Your task to perform on an android device: Go to network settings Image 0: 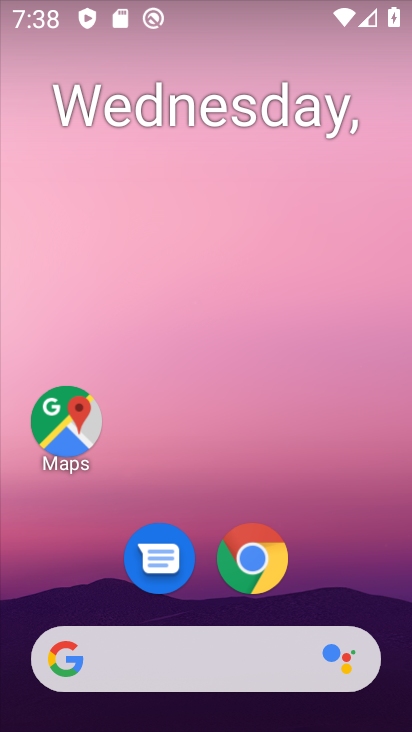
Step 0: press home button
Your task to perform on an android device: Go to network settings Image 1: 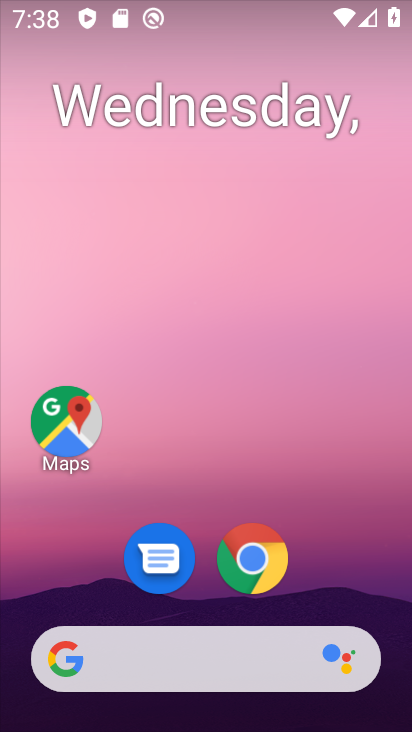
Step 1: drag from (208, 607) to (223, 43)
Your task to perform on an android device: Go to network settings Image 2: 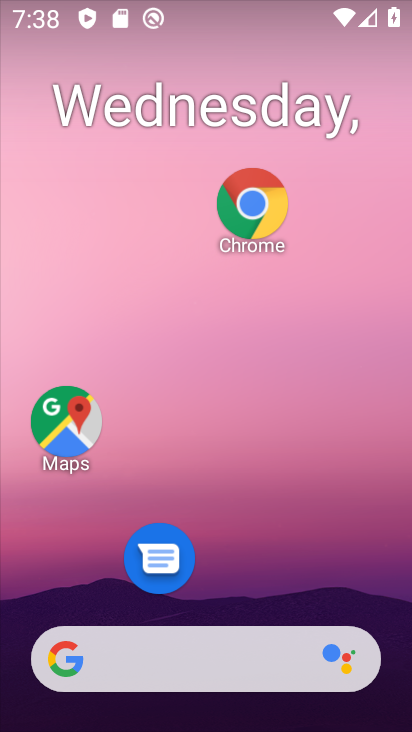
Step 2: drag from (296, 585) to (376, 86)
Your task to perform on an android device: Go to network settings Image 3: 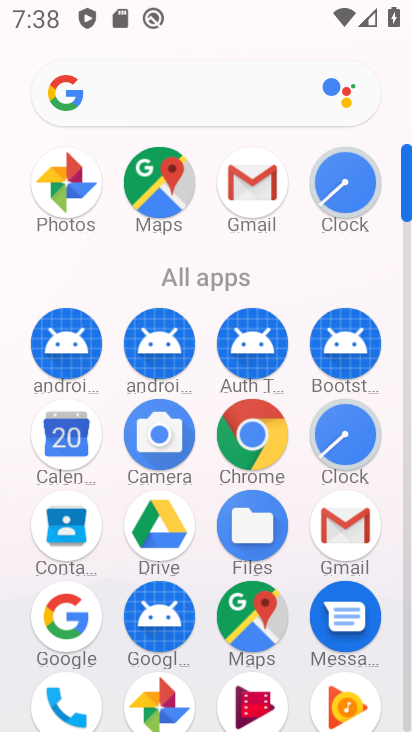
Step 3: drag from (203, 492) to (227, 34)
Your task to perform on an android device: Go to network settings Image 4: 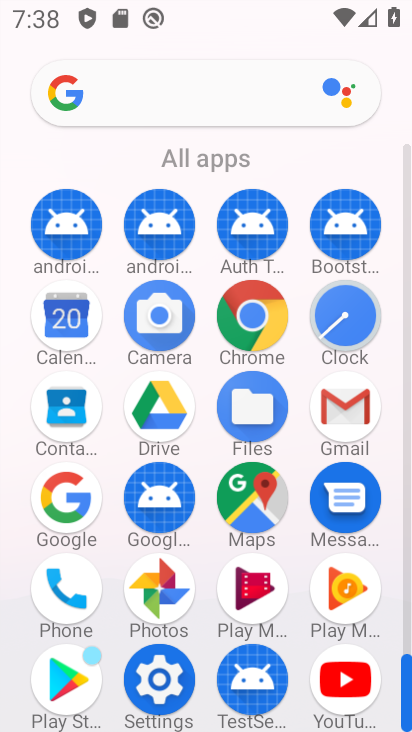
Step 4: click (152, 675)
Your task to perform on an android device: Go to network settings Image 5: 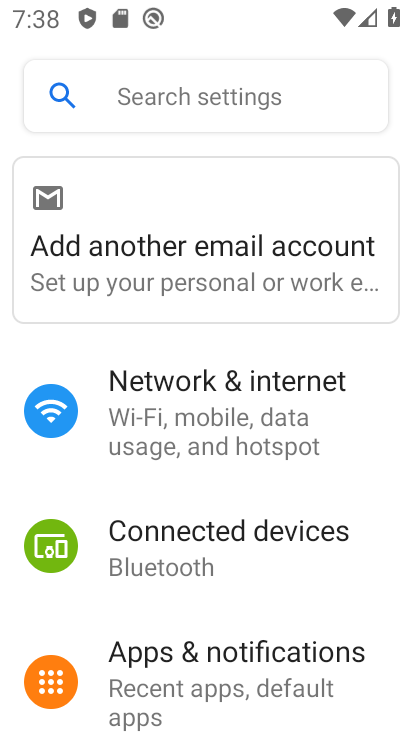
Step 5: click (176, 424)
Your task to perform on an android device: Go to network settings Image 6: 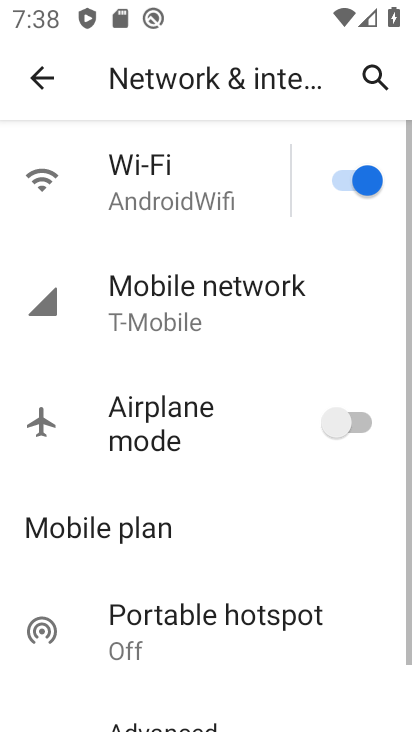
Step 6: drag from (215, 623) to (252, 164)
Your task to perform on an android device: Go to network settings Image 7: 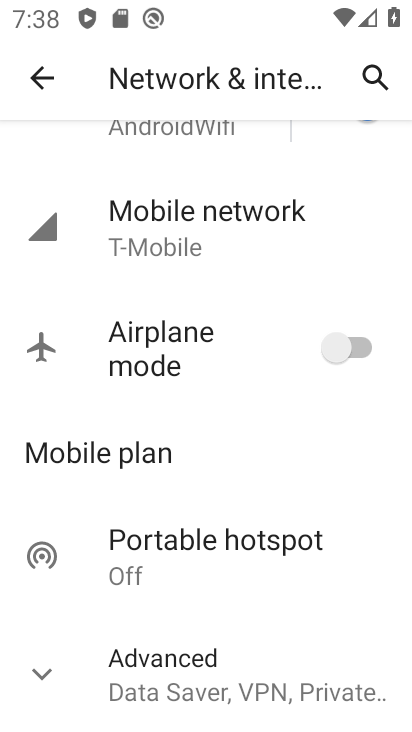
Step 7: click (42, 666)
Your task to perform on an android device: Go to network settings Image 8: 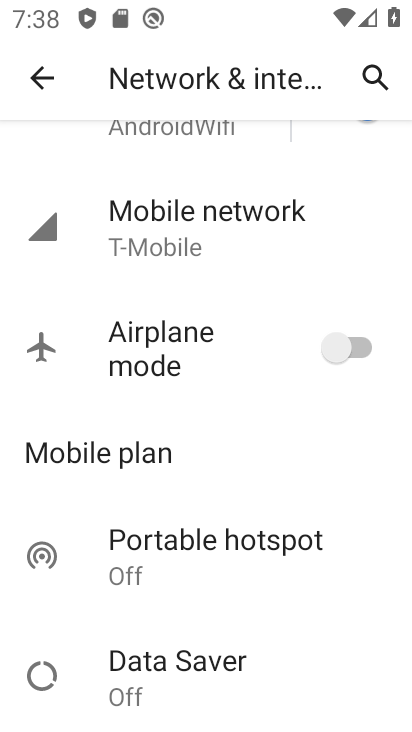
Step 8: task complete